Your task to perform on an android device: Open Amazon Image 0: 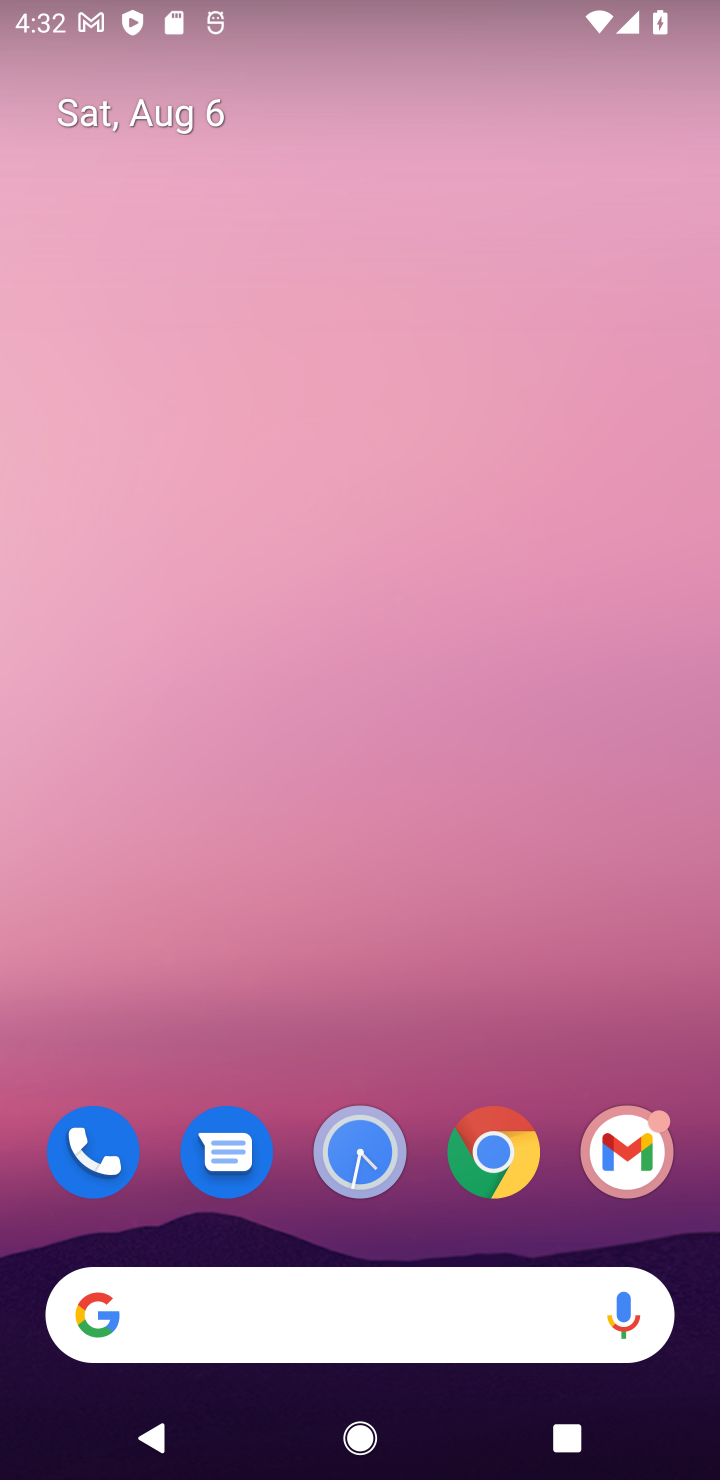
Step 0: drag from (513, 1042) to (534, 215)
Your task to perform on an android device: Open Amazon Image 1: 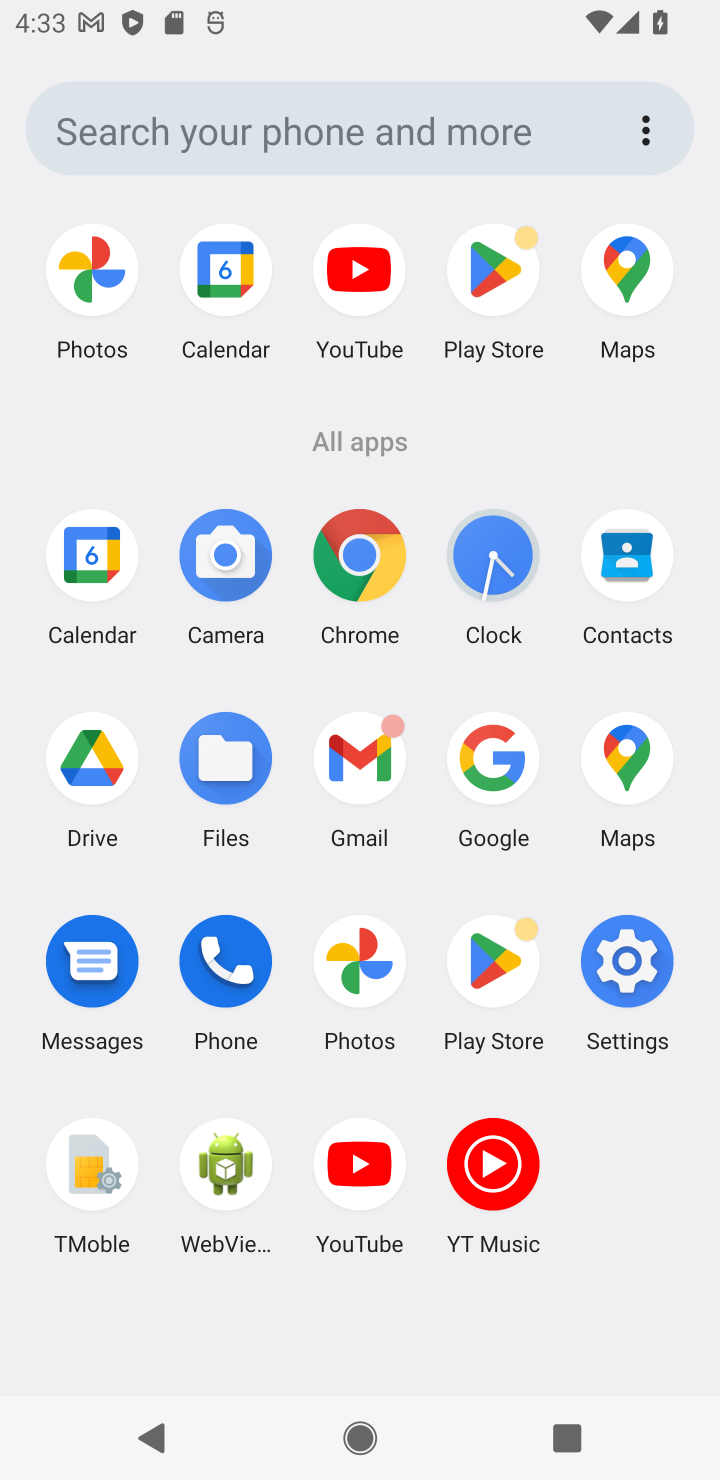
Step 1: click (364, 563)
Your task to perform on an android device: Open Amazon Image 2: 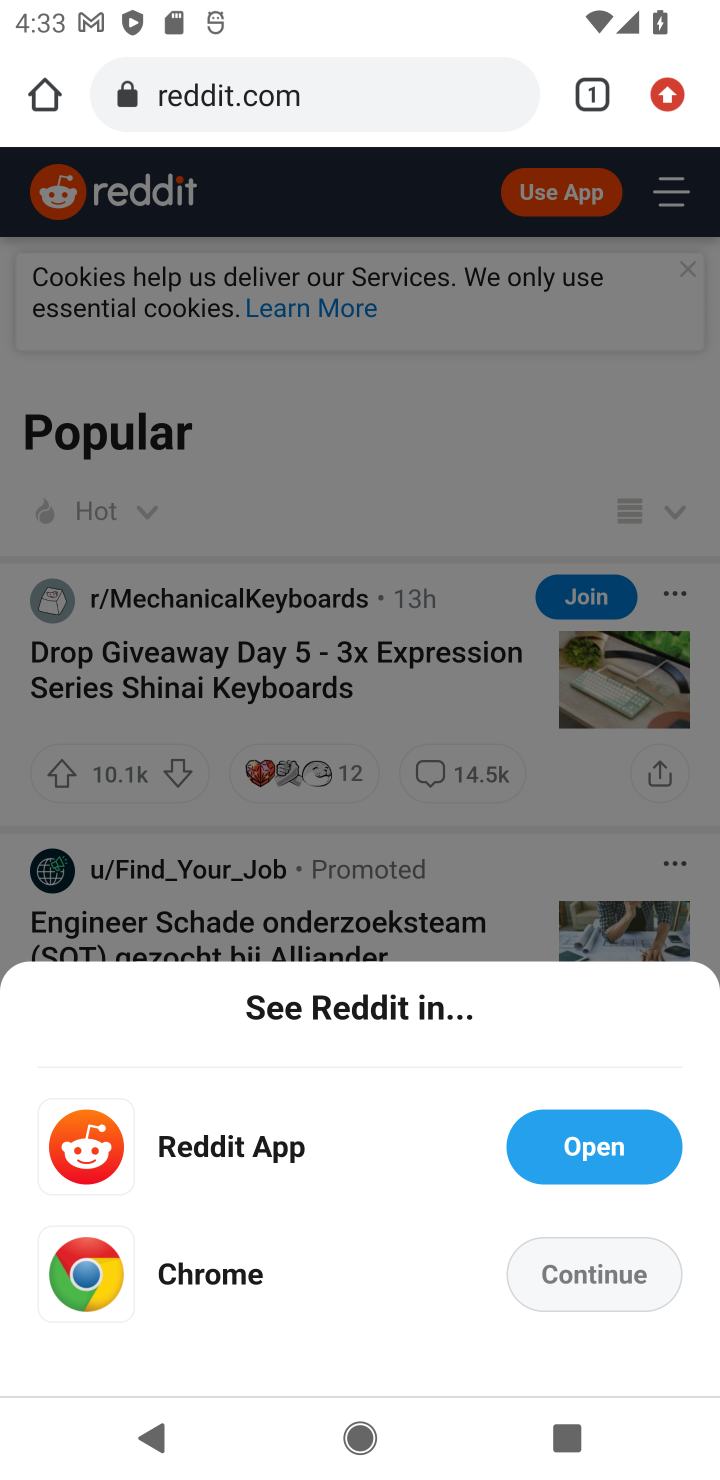
Step 2: click (335, 103)
Your task to perform on an android device: Open Amazon Image 3: 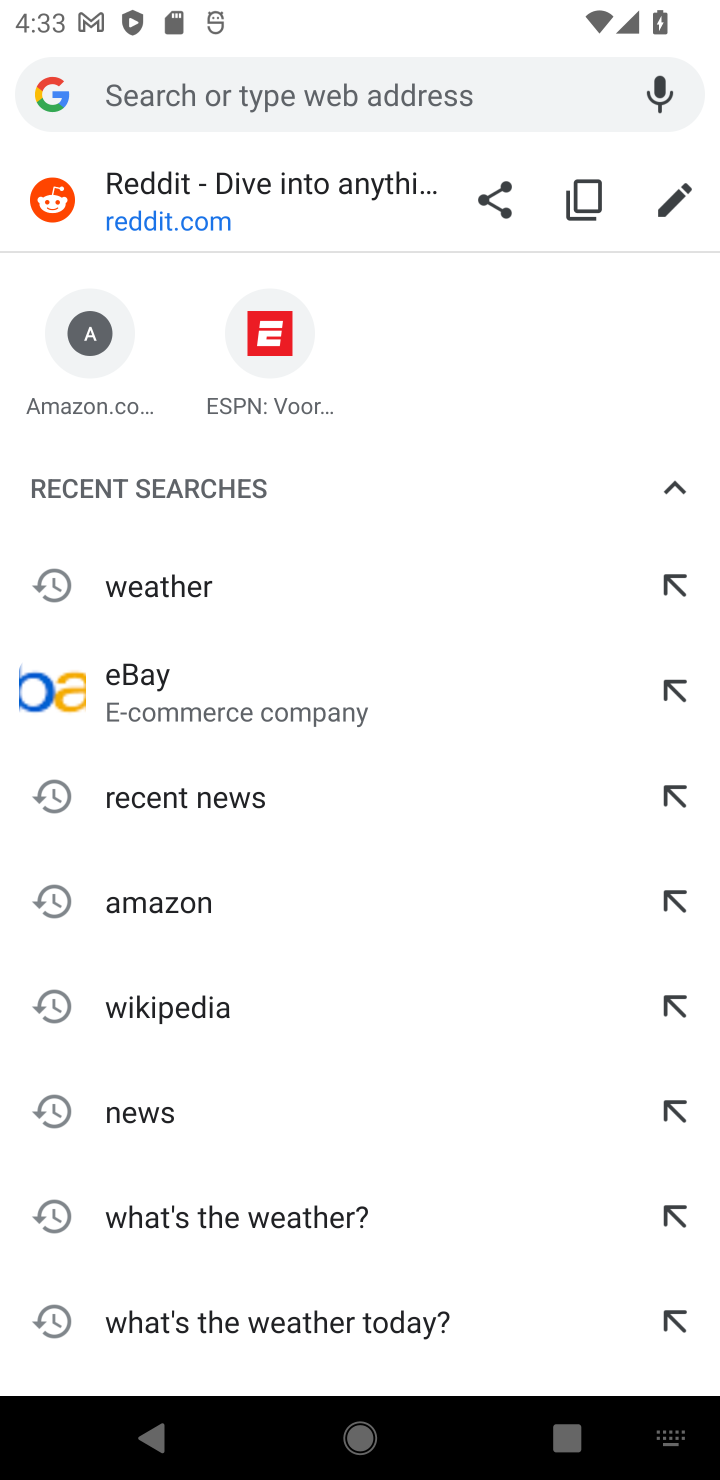
Step 3: type "amazon"
Your task to perform on an android device: Open Amazon Image 4: 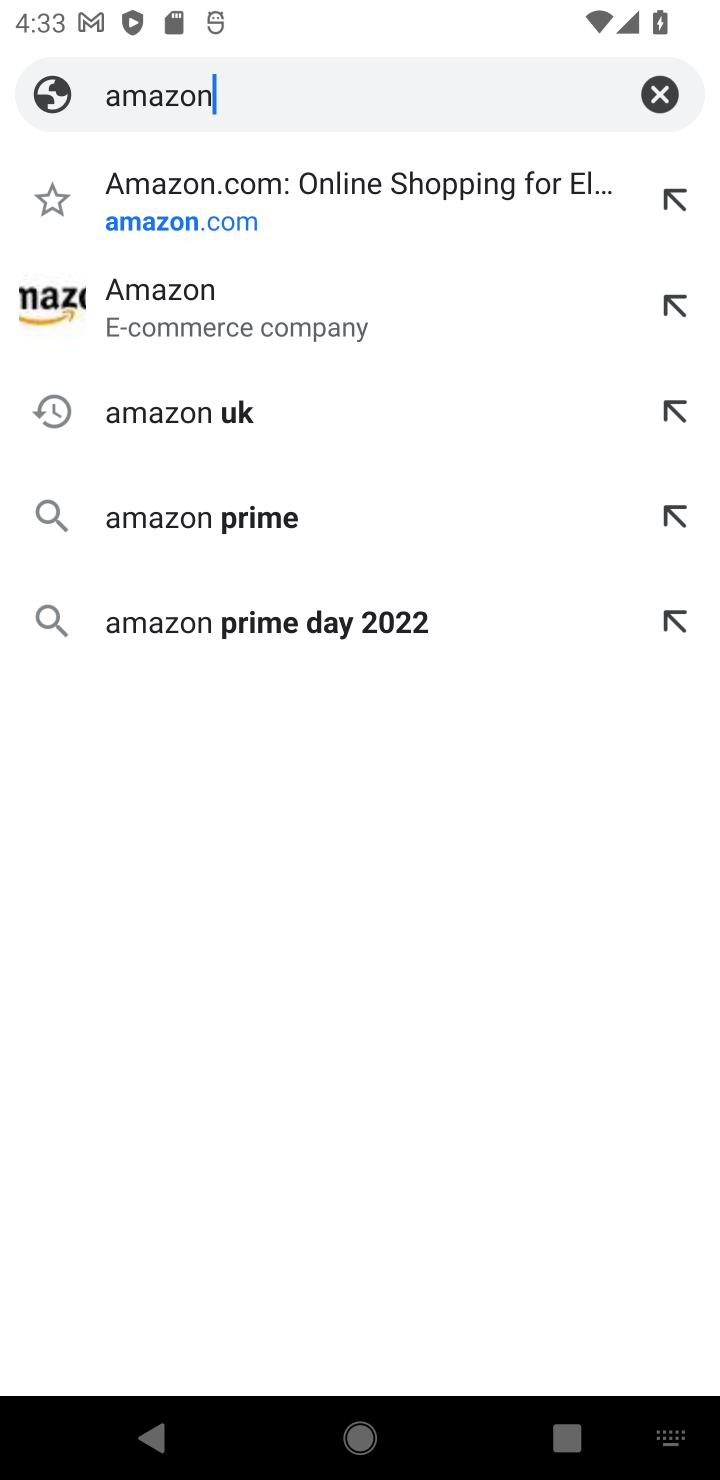
Step 4: click (161, 235)
Your task to perform on an android device: Open Amazon Image 5: 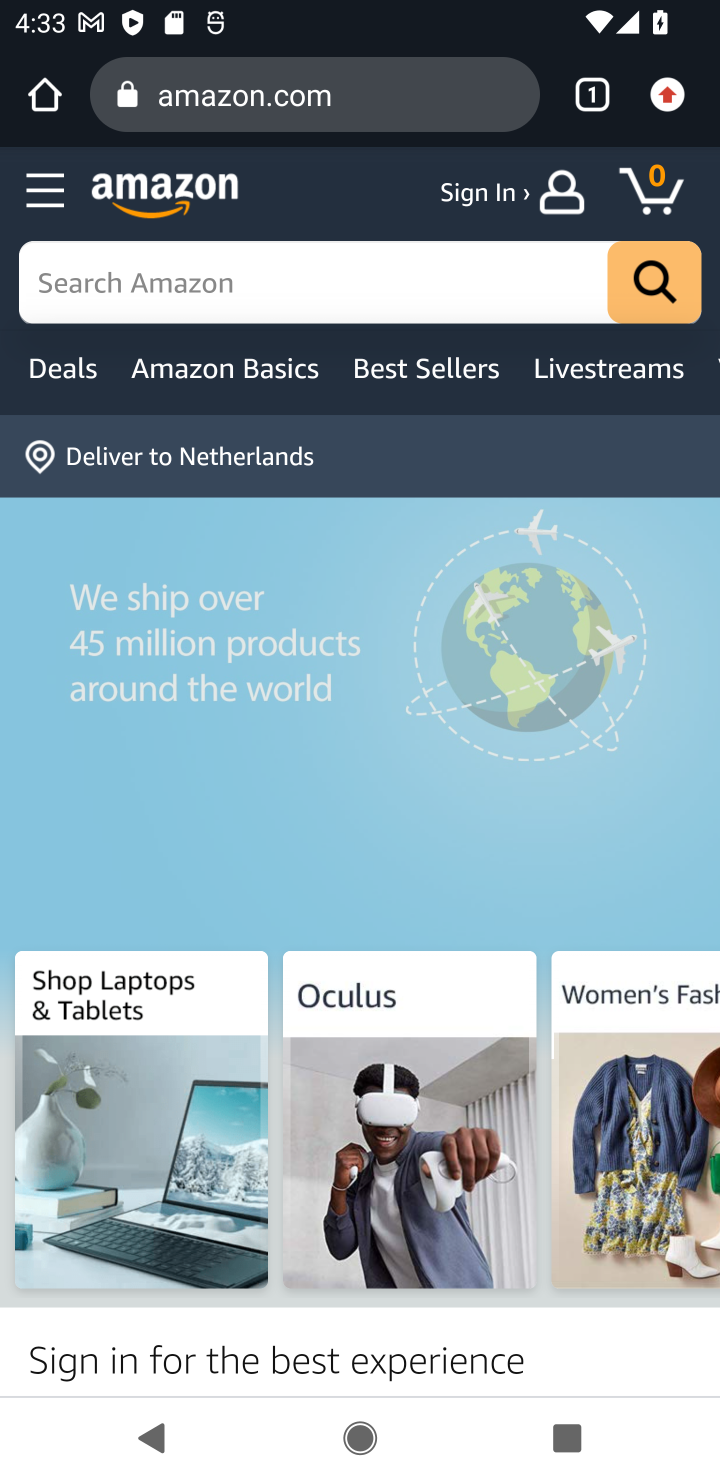
Step 5: task complete